Your task to perform on an android device: What's the news in Bolivia? Image 0: 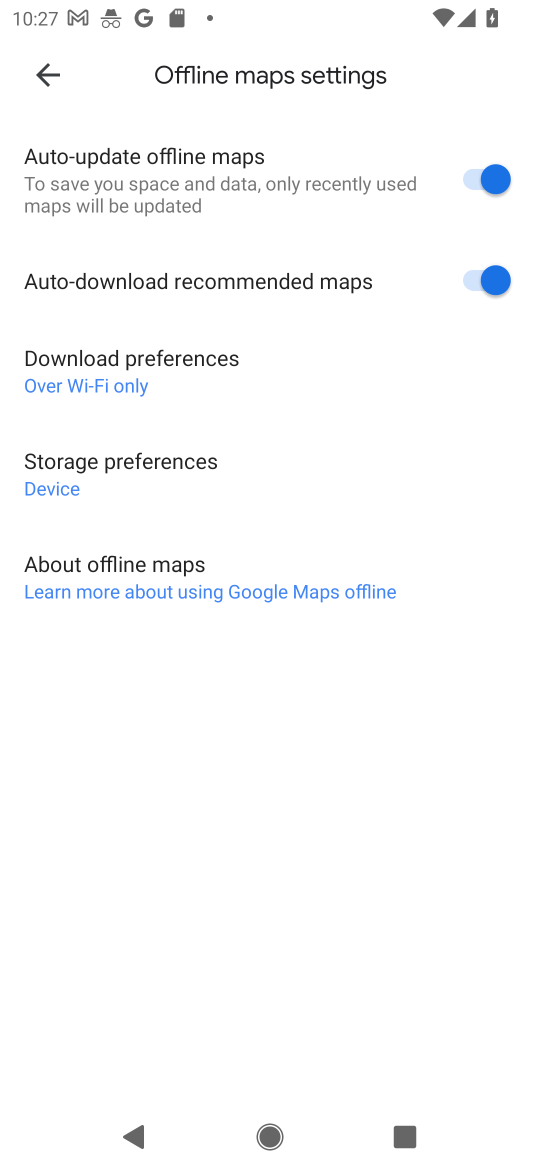
Step 0: press home button
Your task to perform on an android device: What's the news in Bolivia? Image 1: 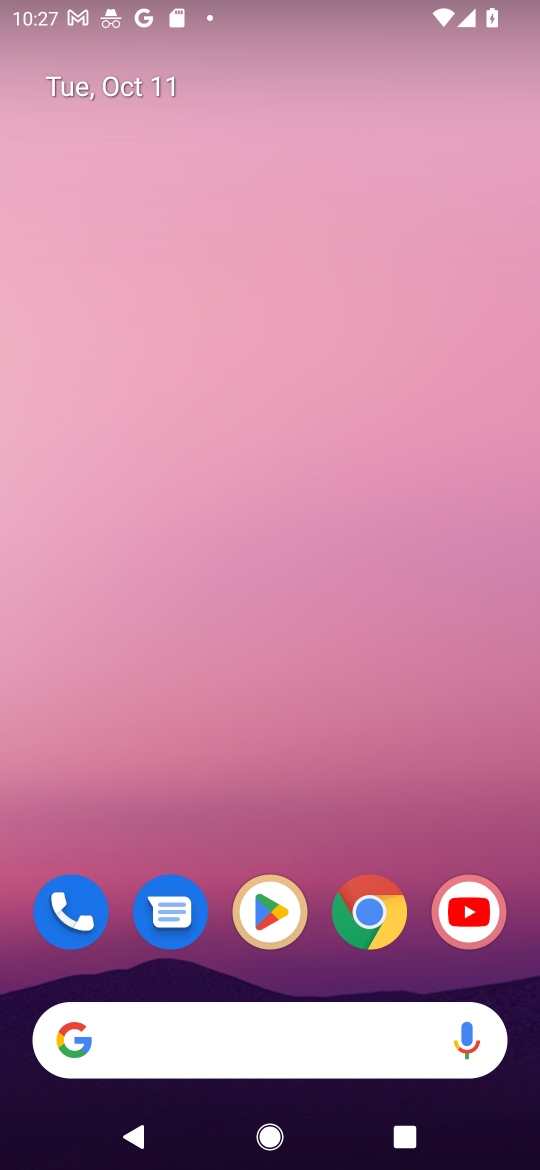
Step 1: click (365, 903)
Your task to perform on an android device: What's the news in Bolivia? Image 2: 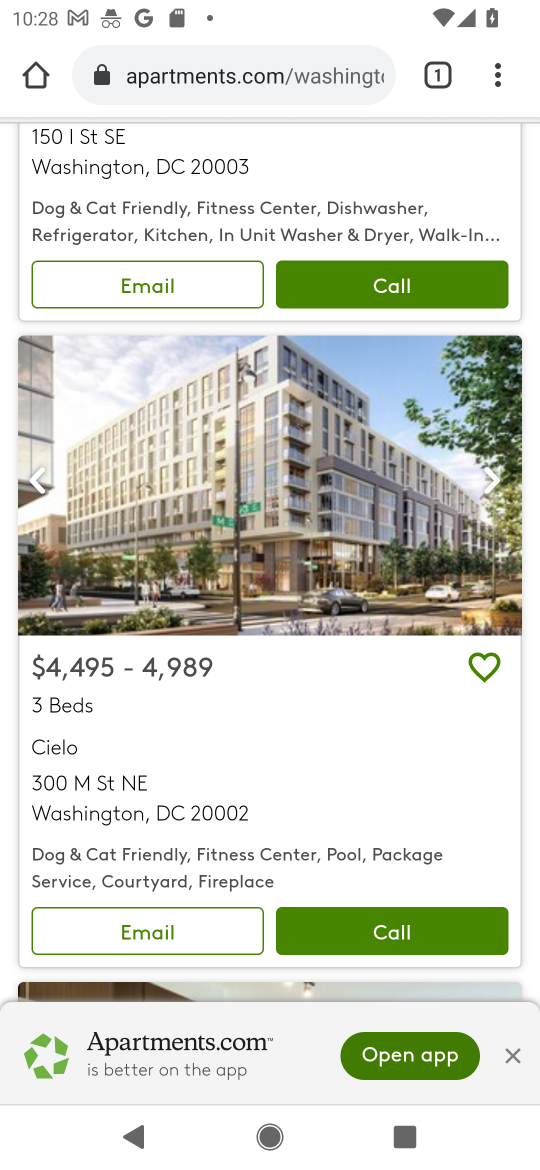
Step 2: click (197, 55)
Your task to perform on an android device: What's the news in Bolivia? Image 3: 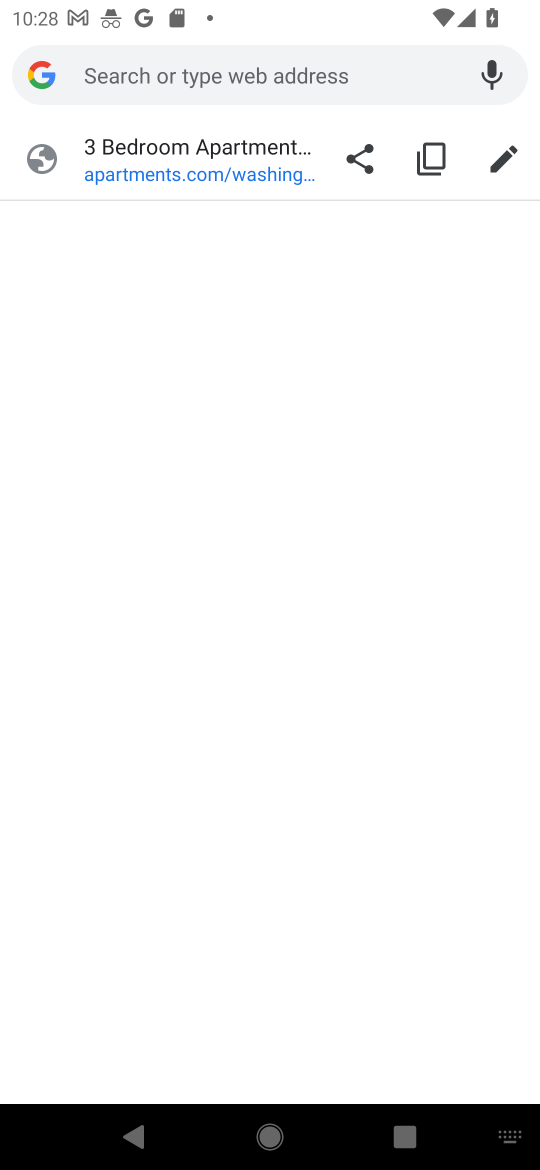
Step 3: type "news in Bolivia"
Your task to perform on an android device: What's the news in Bolivia? Image 4: 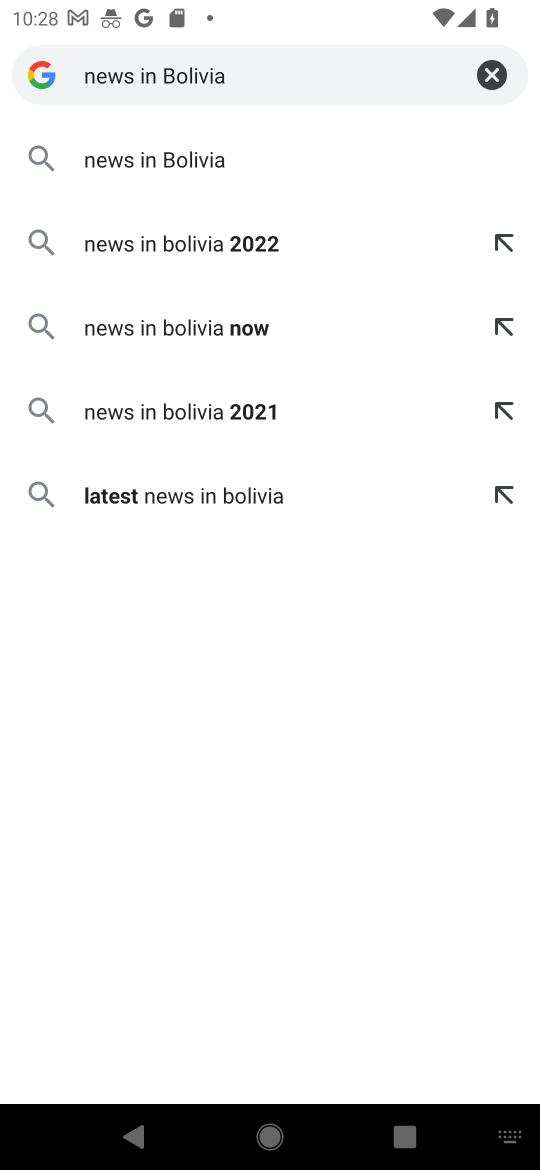
Step 4: click (172, 159)
Your task to perform on an android device: What's the news in Bolivia? Image 5: 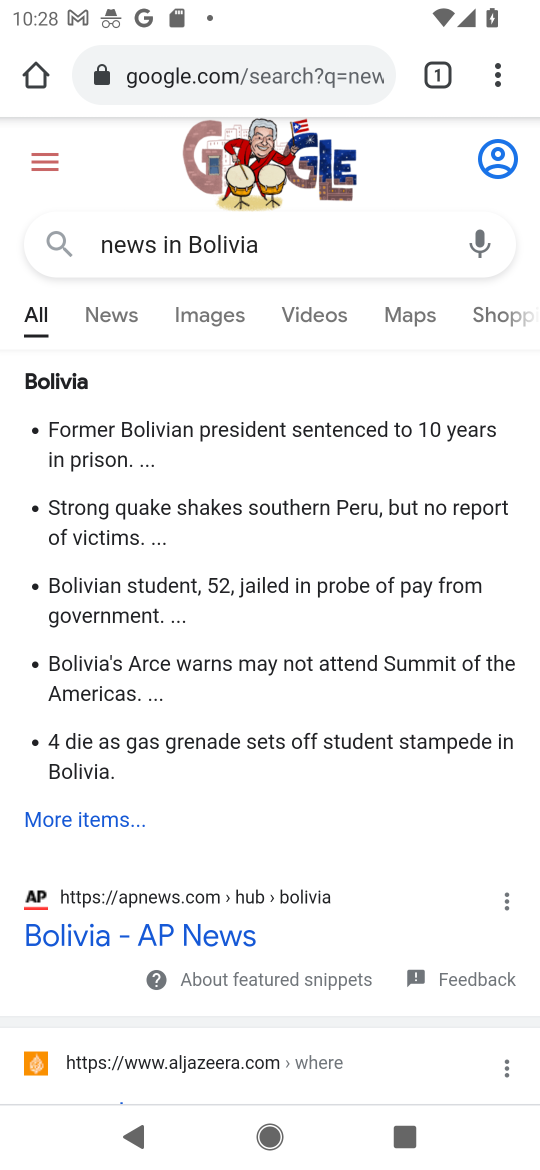
Step 5: drag from (295, 792) to (292, 586)
Your task to perform on an android device: What's the news in Bolivia? Image 6: 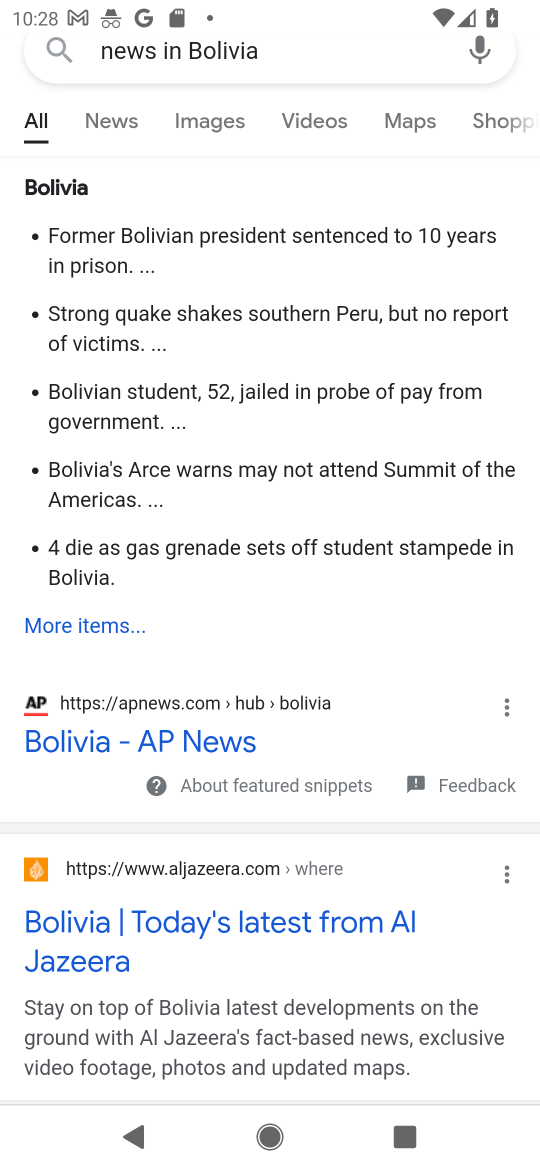
Step 6: click (75, 737)
Your task to perform on an android device: What's the news in Bolivia? Image 7: 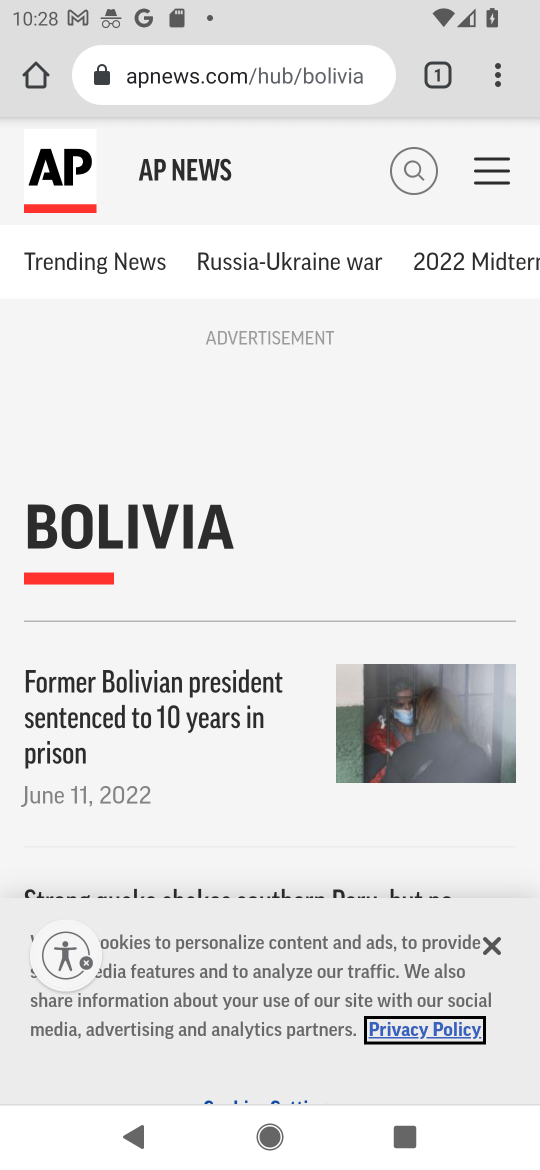
Step 7: drag from (375, 952) to (377, 461)
Your task to perform on an android device: What's the news in Bolivia? Image 8: 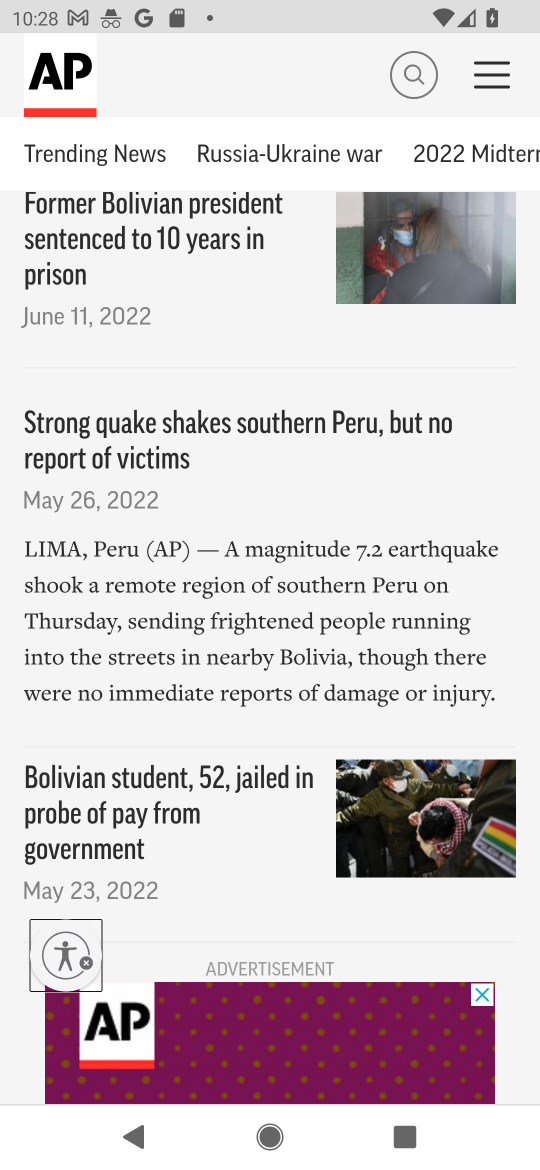
Step 8: drag from (278, 629) to (259, 378)
Your task to perform on an android device: What's the news in Bolivia? Image 9: 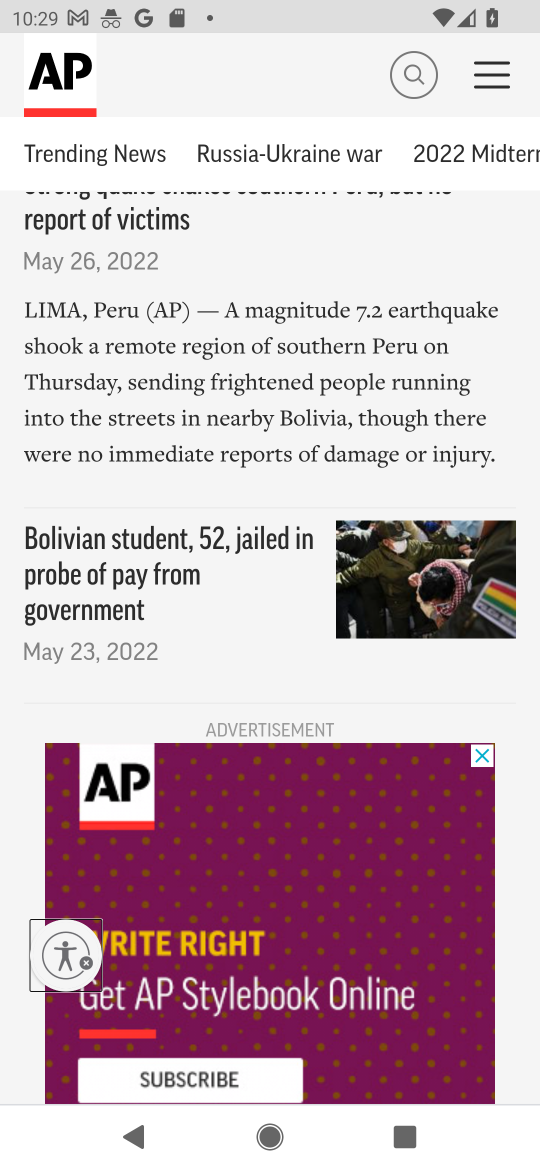
Step 9: click (79, 222)
Your task to perform on an android device: What's the news in Bolivia? Image 10: 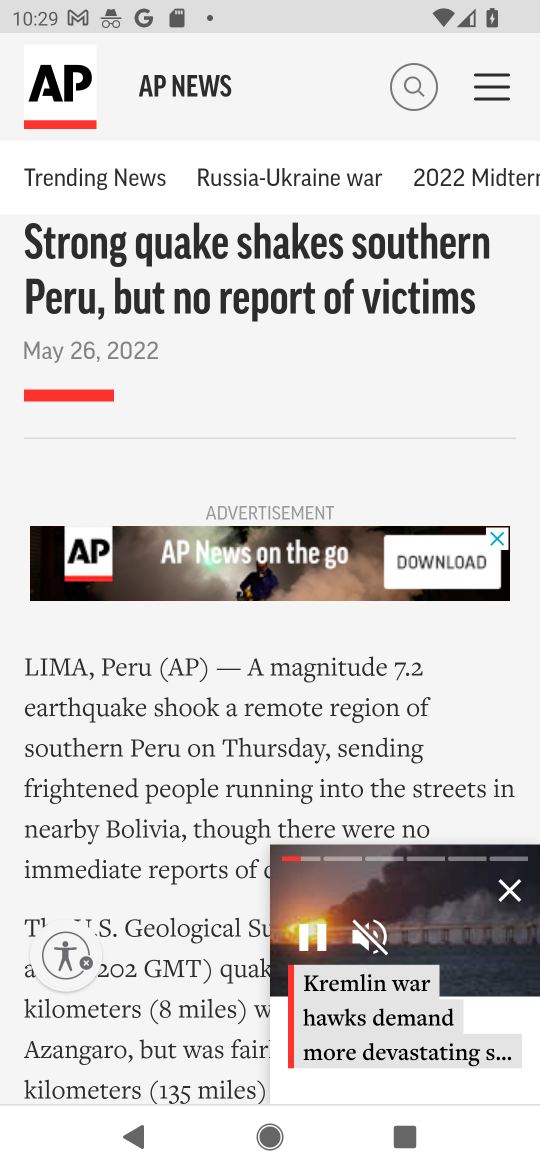
Step 10: task complete